Your task to perform on an android device: Go to eBay Image 0: 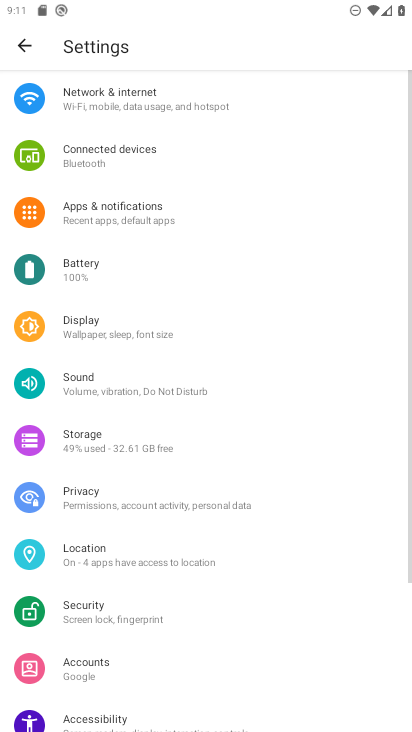
Step 0: press home button
Your task to perform on an android device: Go to eBay Image 1: 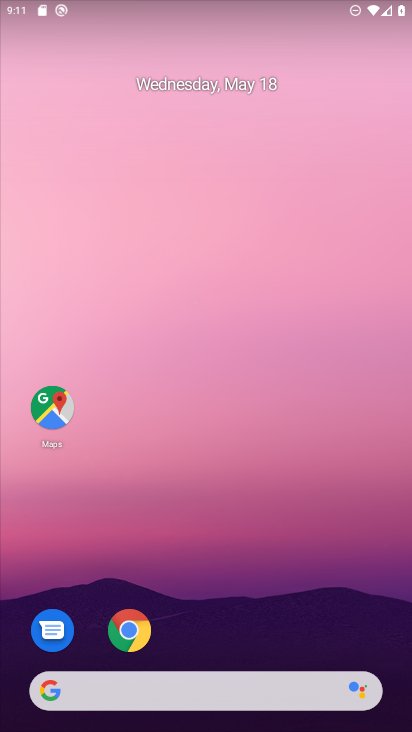
Step 1: click (129, 622)
Your task to perform on an android device: Go to eBay Image 2: 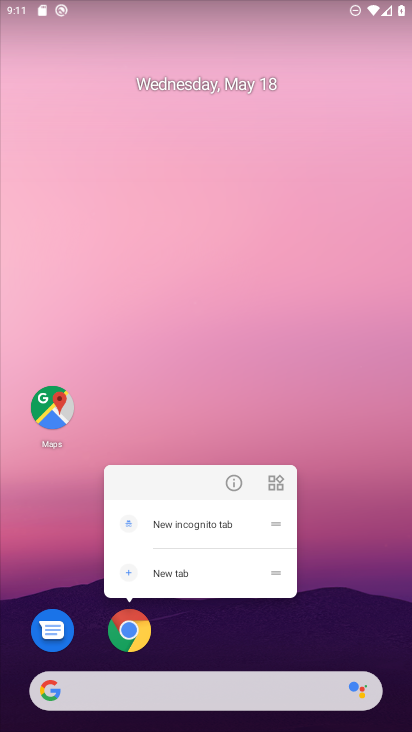
Step 2: click (130, 655)
Your task to perform on an android device: Go to eBay Image 3: 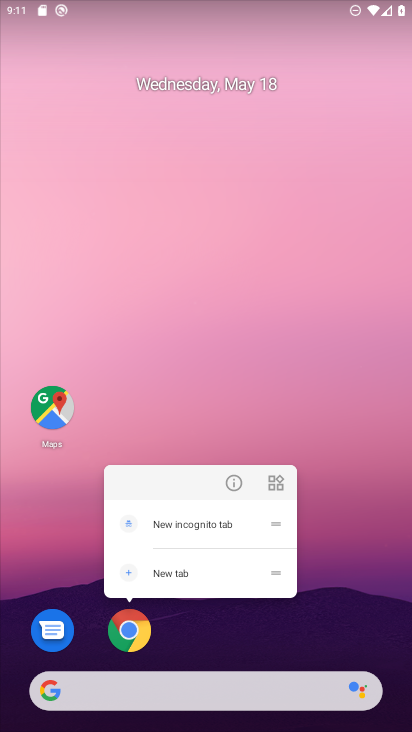
Step 3: click (136, 643)
Your task to perform on an android device: Go to eBay Image 4: 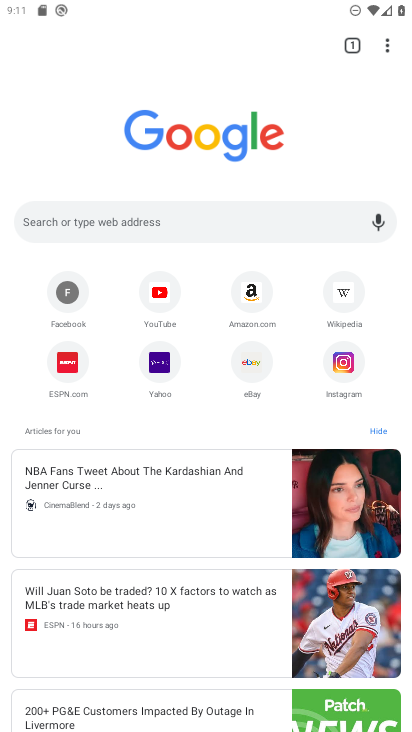
Step 4: click (236, 359)
Your task to perform on an android device: Go to eBay Image 5: 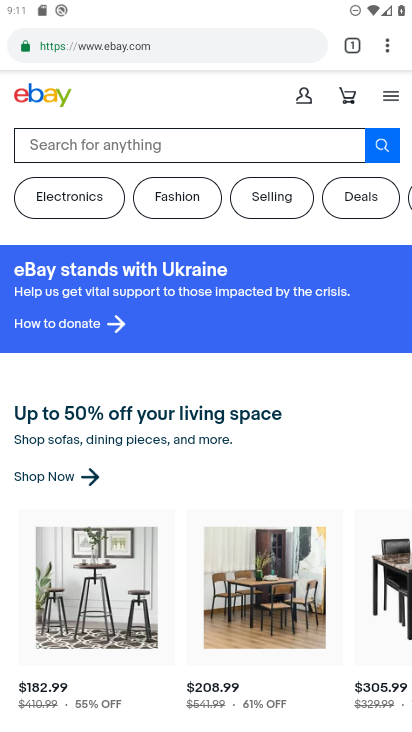
Step 5: task complete